Your task to perform on an android device: toggle sleep mode Image 0: 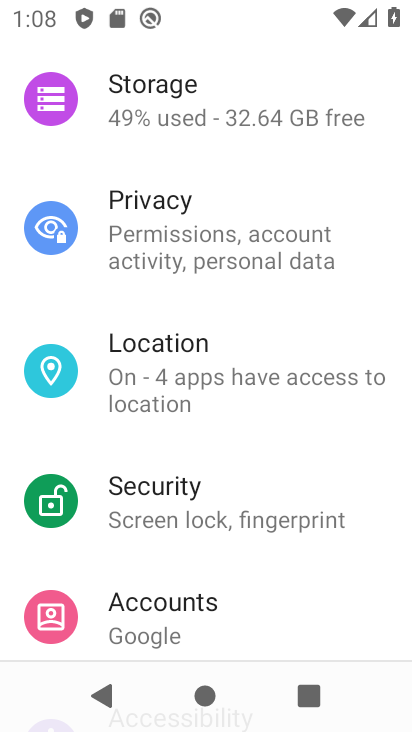
Step 0: drag from (212, 218) to (317, 533)
Your task to perform on an android device: toggle sleep mode Image 1: 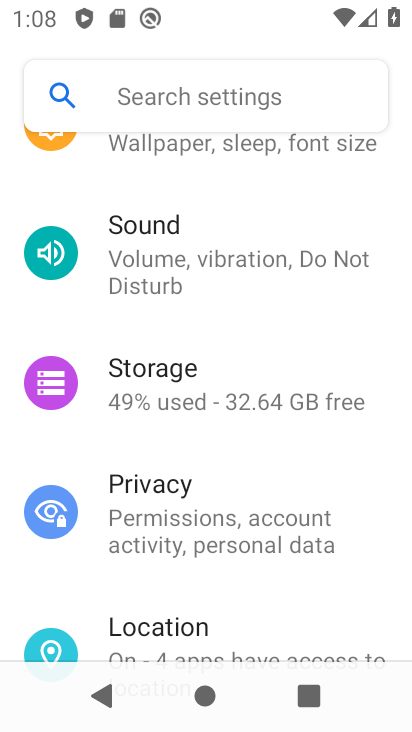
Step 1: click (203, 136)
Your task to perform on an android device: toggle sleep mode Image 2: 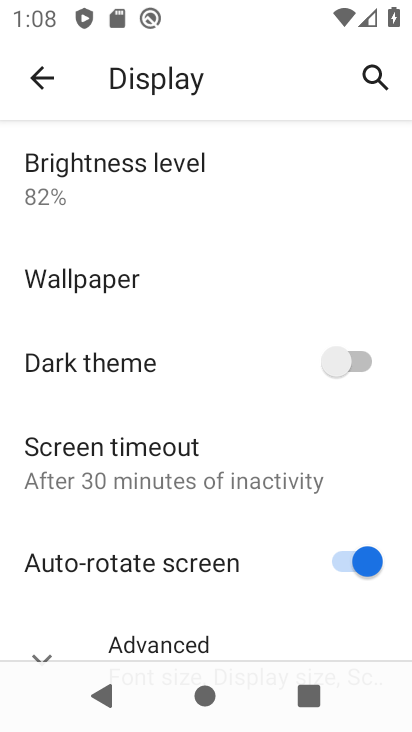
Step 2: click (186, 472)
Your task to perform on an android device: toggle sleep mode Image 3: 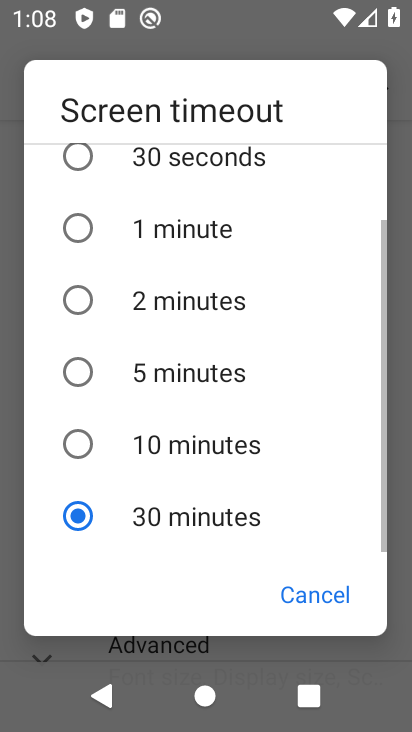
Step 3: click (74, 227)
Your task to perform on an android device: toggle sleep mode Image 4: 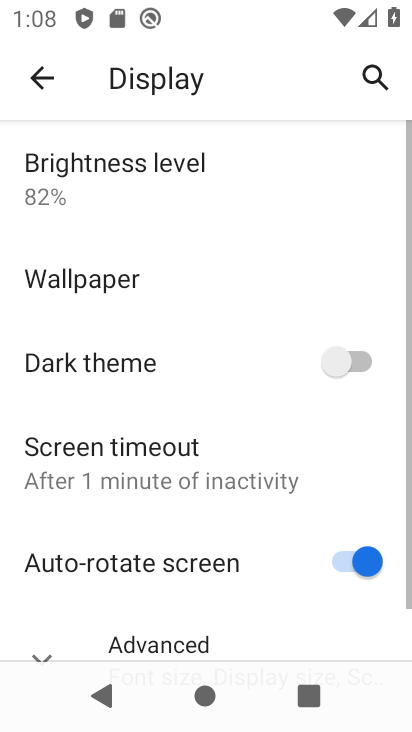
Step 4: task complete